Your task to perform on an android device: Do I have any events tomorrow? Image 0: 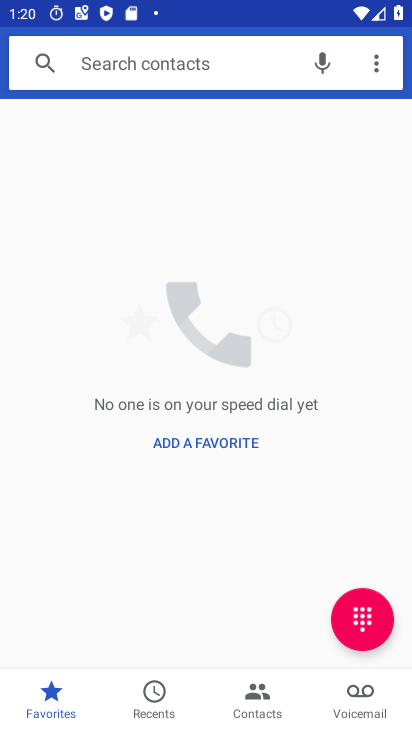
Step 0: press home button
Your task to perform on an android device: Do I have any events tomorrow? Image 1: 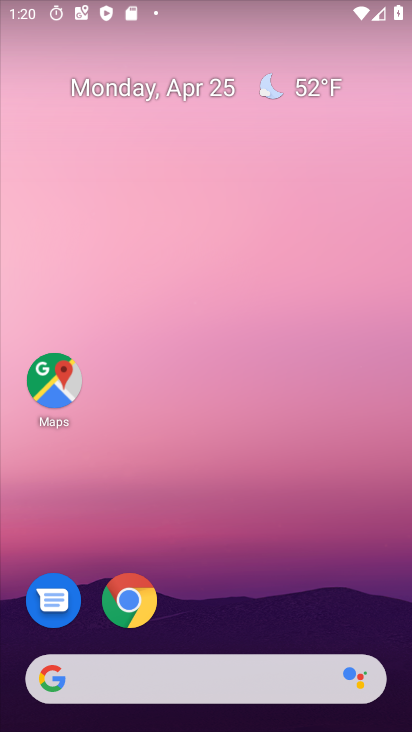
Step 1: drag from (160, 676) to (249, 138)
Your task to perform on an android device: Do I have any events tomorrow? Image 2: 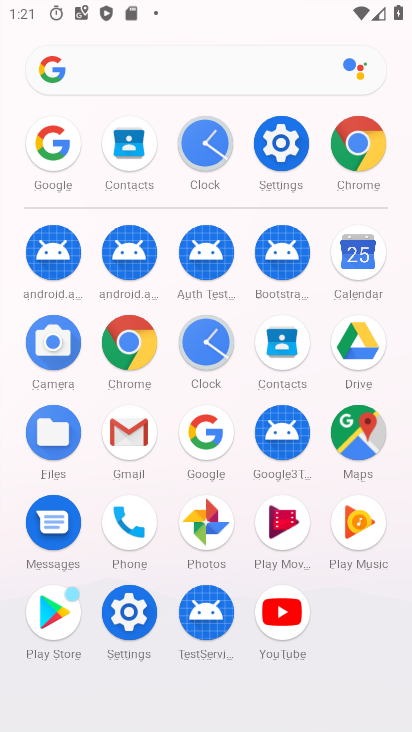
Step 2: click (359, 265)
Your task to perform on an android device: Do I have any events tomorrow? Image 3: 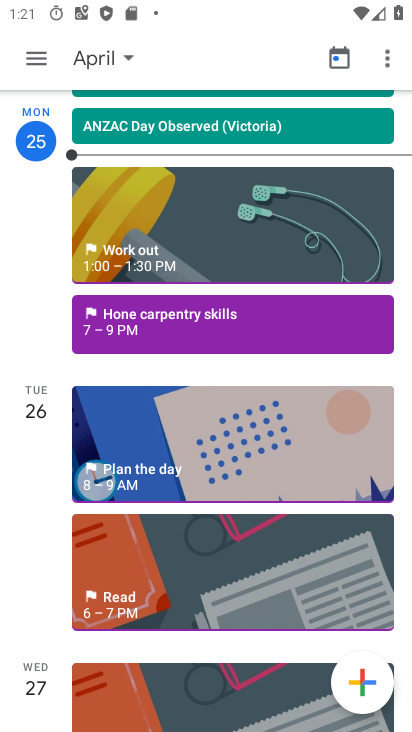
Step 3: click (182, 320)
Your task to perform on an android device: Do I have any events tomorrow? Image 4: 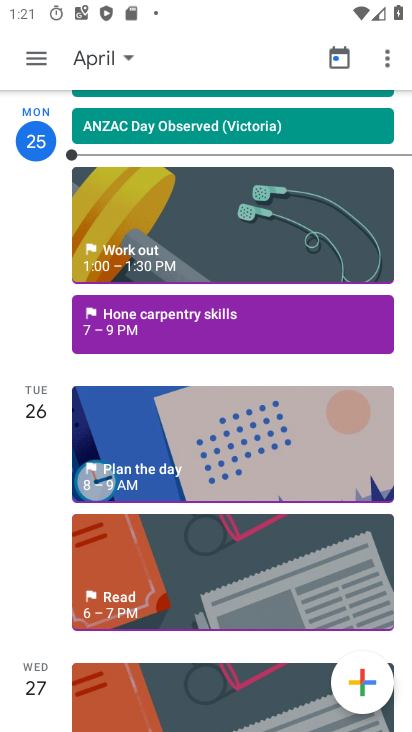
Step 4: click (173, 316)
Your task to perform on an android device: Do I have any events tomorrow? Image 5: 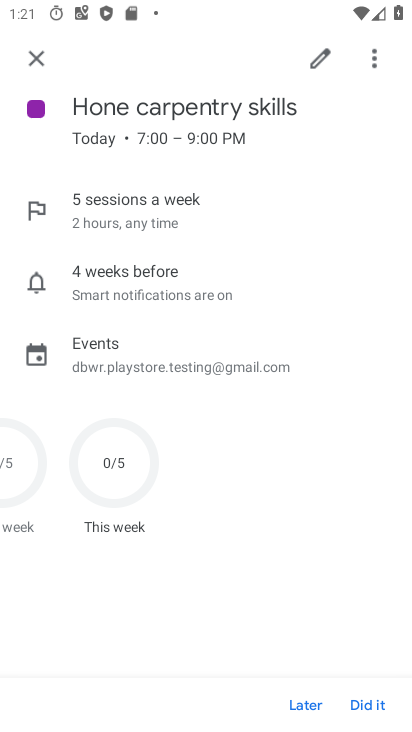
Step 5: task complete